Your task to perform on an android device: turn on bluetooth scan Image 0: 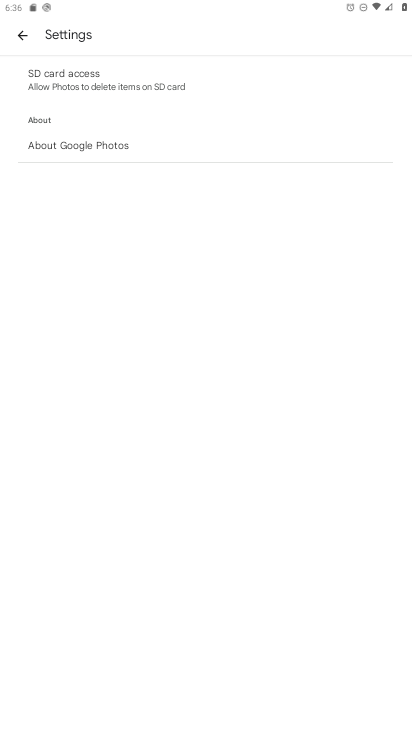
Step 0: press home button
Your task to perform on an android device: turn on bluetooth scan Image 1: 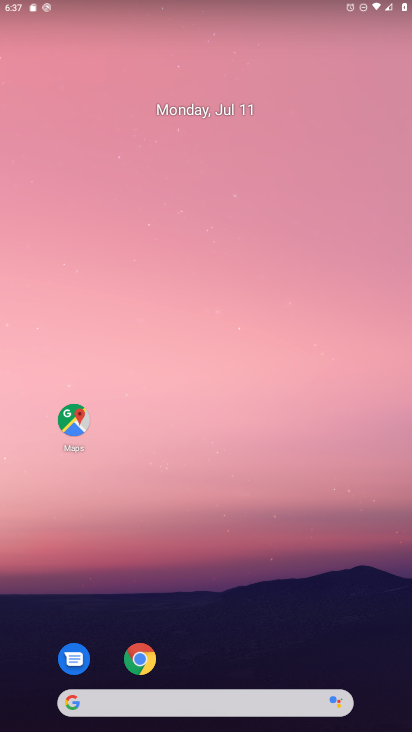
Step 1: drag from (368, 642) to (354, 136)
Your task to perform on an android device: turn on bluetooth scan Image 2: 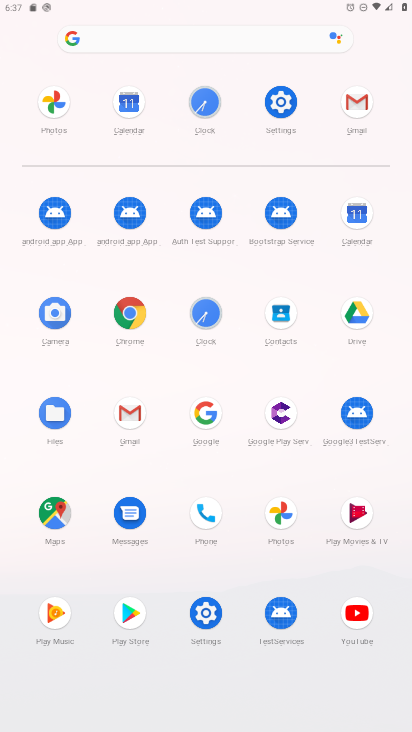
Step 2: click (205, 610)
Your task to perform on an android device: turn on bluetooth scan Image 3: 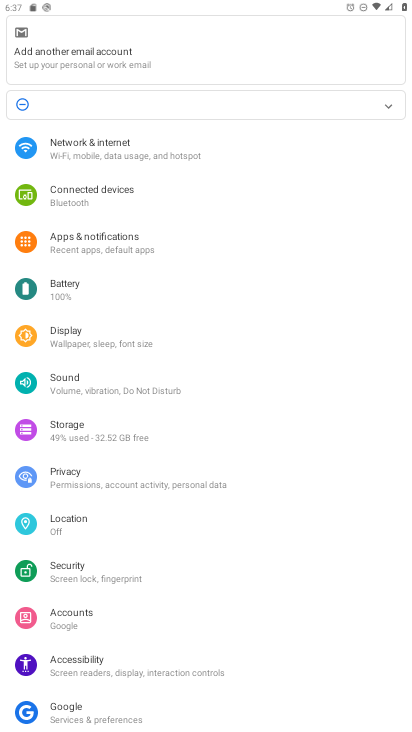
Step 3: click (58, 524)
Your task to perform on an android device: turn on bluetooth scan Image 4: 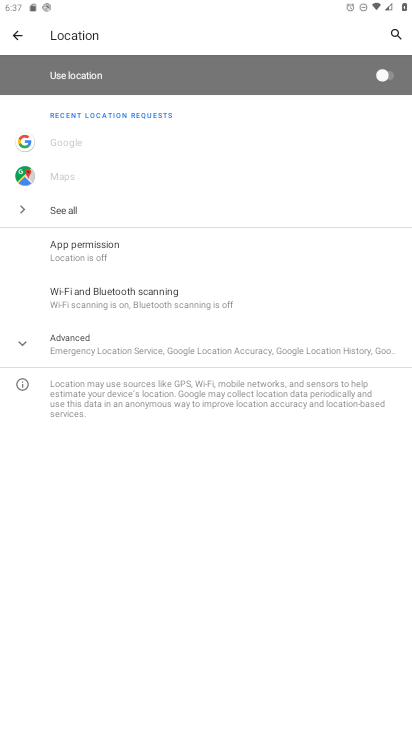
Step 4: click (92, 290)
Your task to perform on an android device: turn on bluetooth scan Image 5: 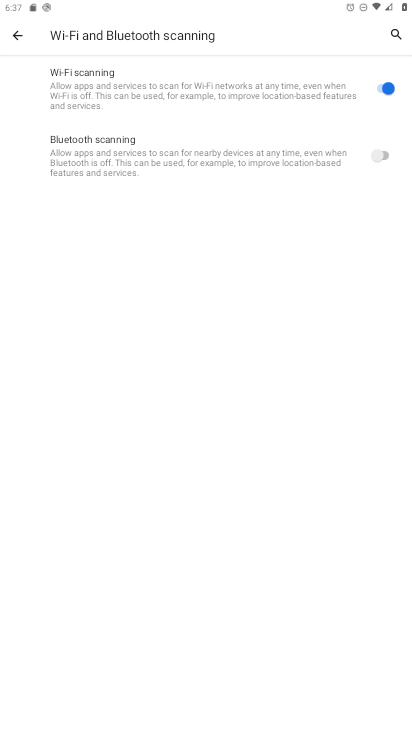
Step 5: click (383, 155)
Your task to perform on an android device: turn on bluetooth scan Image 6: 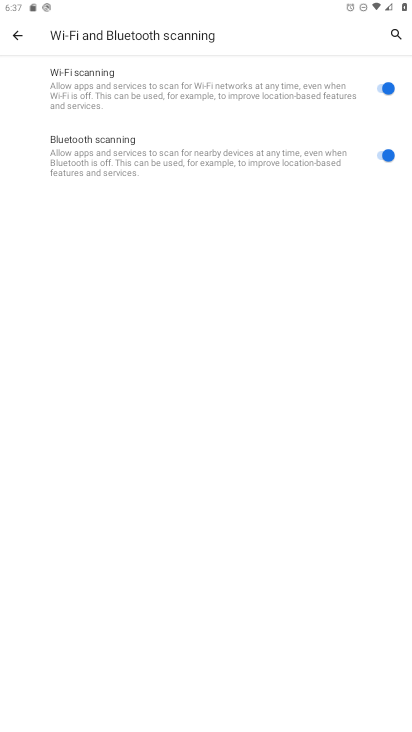
Step 6: task complete